Your task to perform on an android device: toggle notifications settings in the gmail app Image 0: 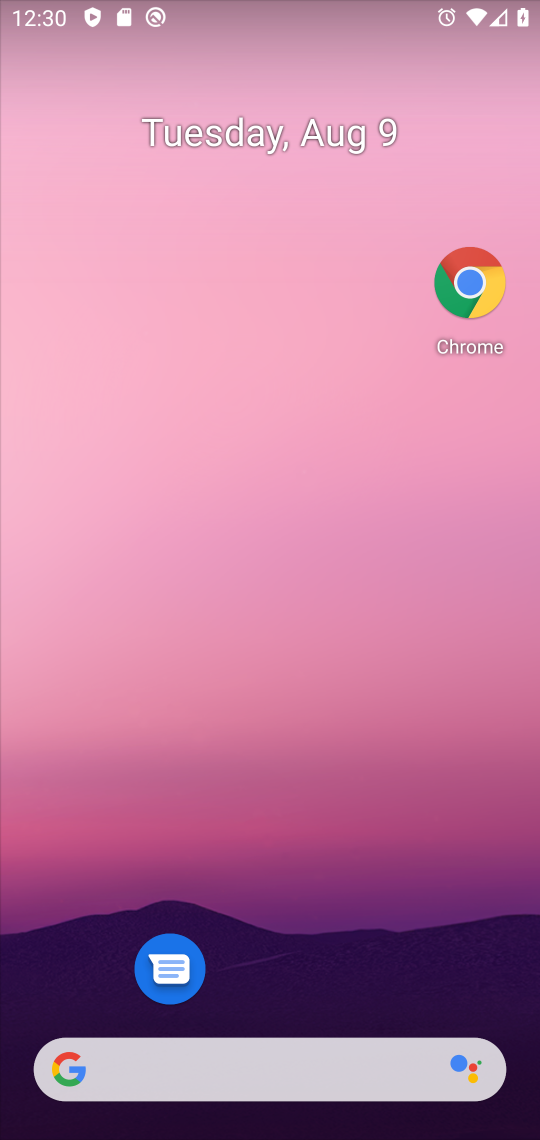
Step 0: drag from (280, 816) to (292, 384)
Your task to perform on an android device: toggle notifications settings in the gmail app Image 1: 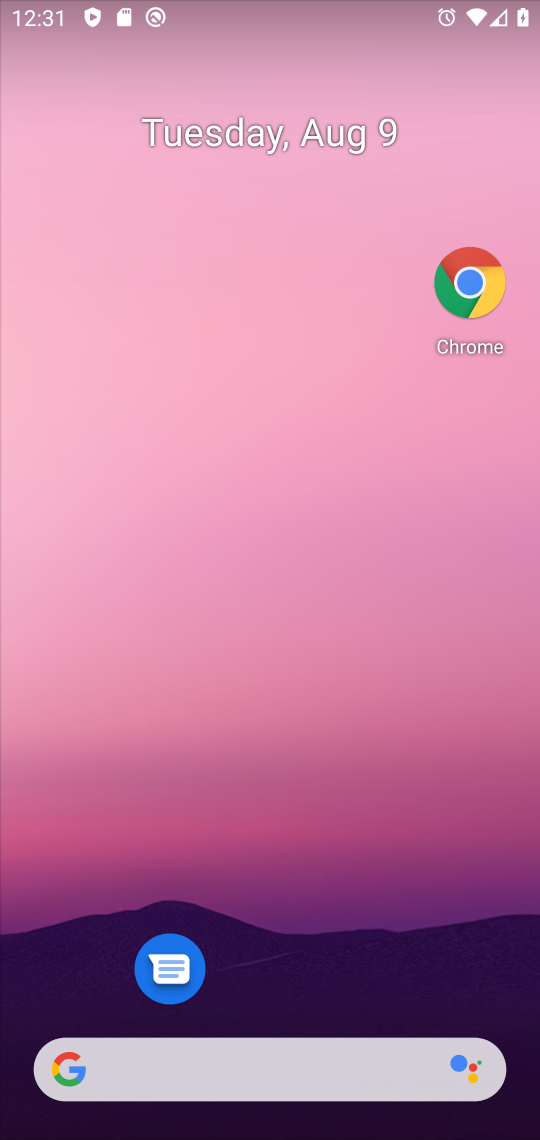
Step 1: drag from (229, 983) to (384, 255)
Your task to perform on an android device: toggle notifications settings in the gmail app Image 2: 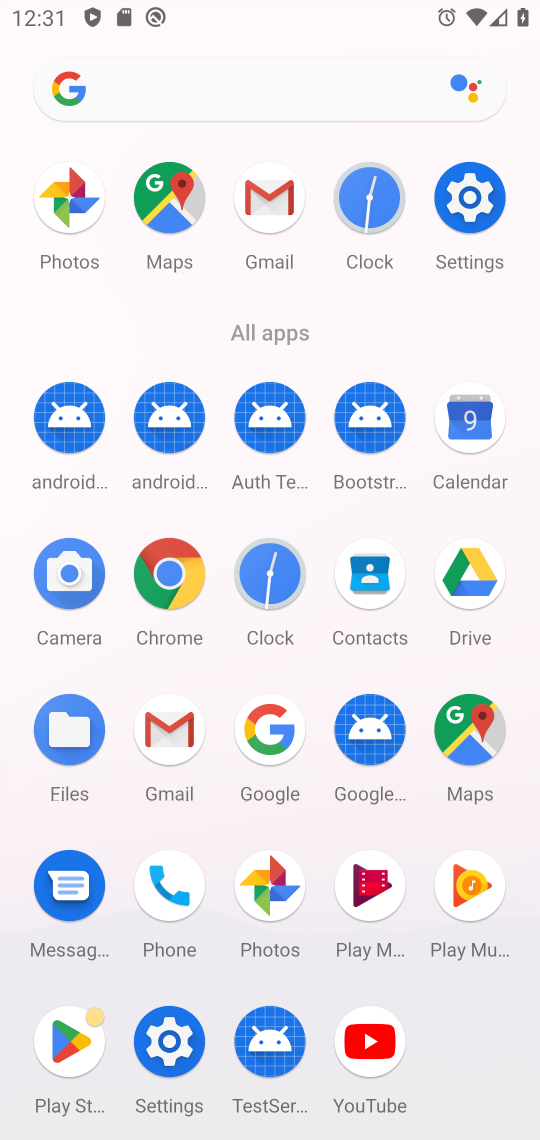
Step 2: click (179, 718)
Your task to perform on an android device: toggle notifications settings in the gmail app Image 3: 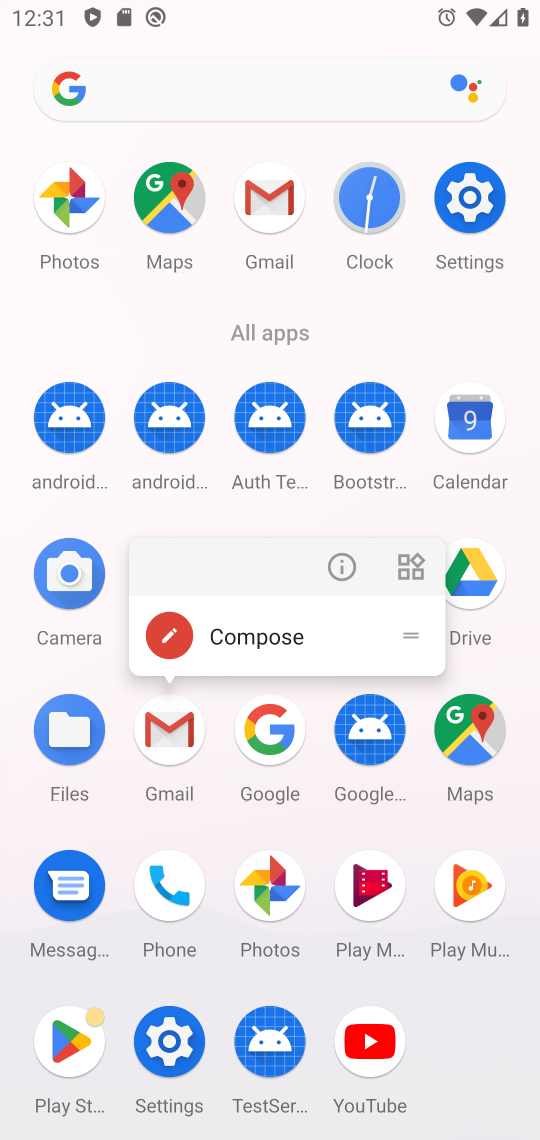
Step 3: click (343, 563)
Your task to perform on an android device: toggle notifications settings in the gmail app Image 4: 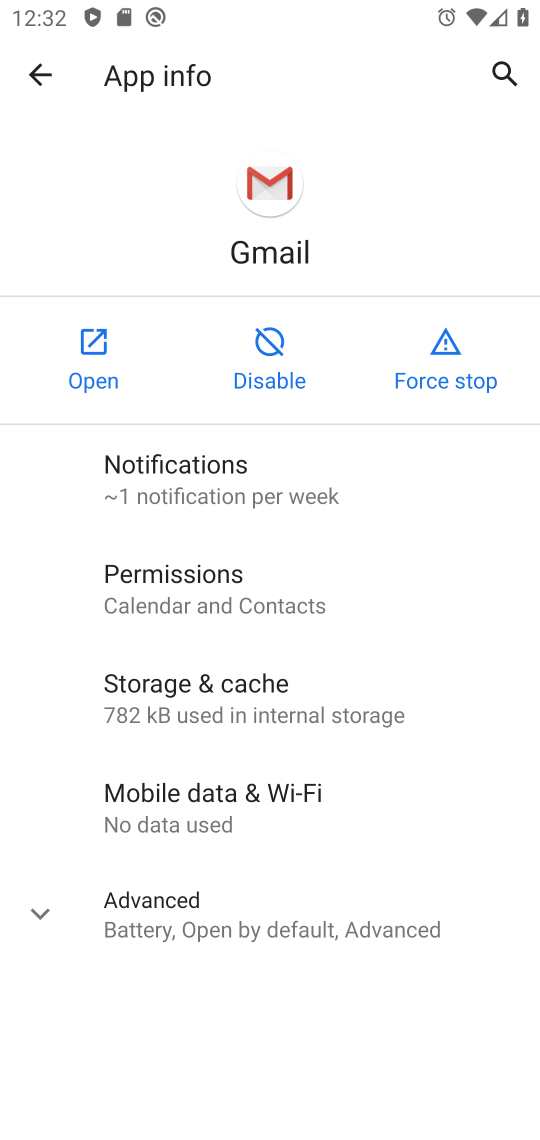
Step 4: click (95, 380)
Your task to perform on an android device: toggle notifications settings in the gmail app Image 5: 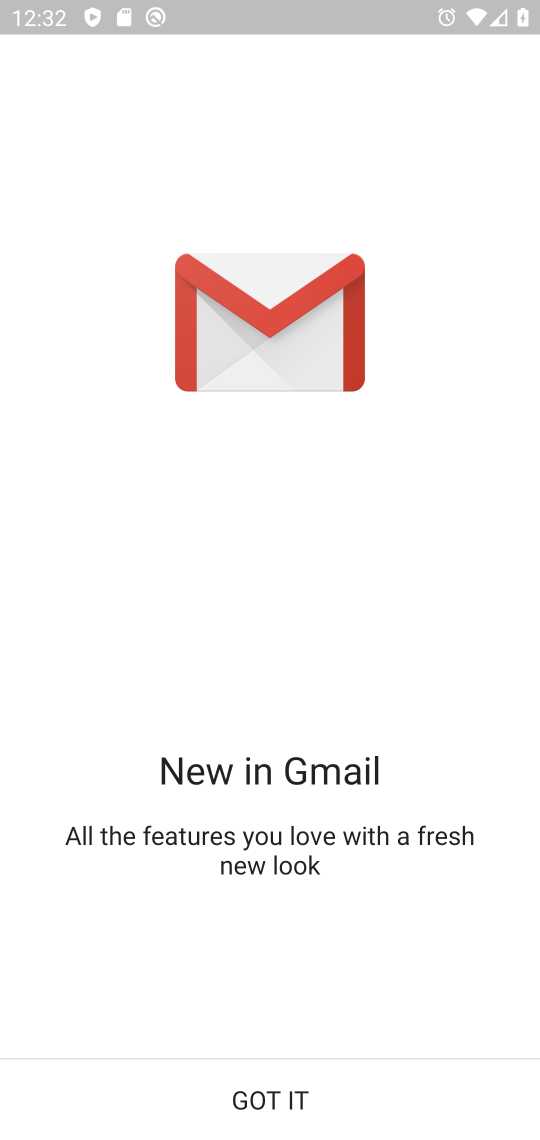
Step 5: click (282, 1077)
Your task to perform on an android device: toggle notifications settings in the gmail app Image 6: 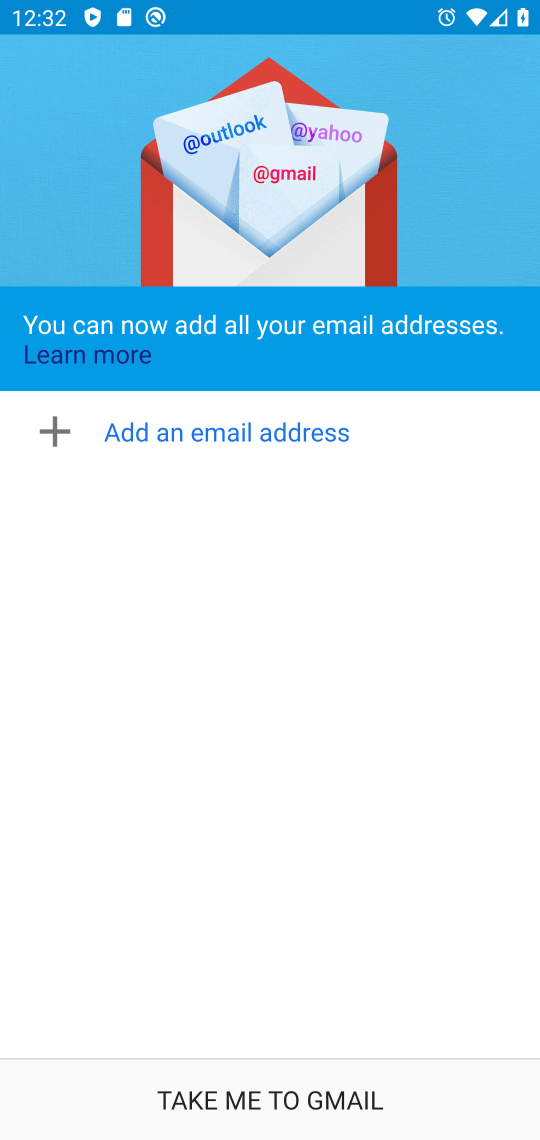
Step 6: click (217, 1101)
Your task to perform on an android device: toggle notifications settings in the gmail app Image 7: 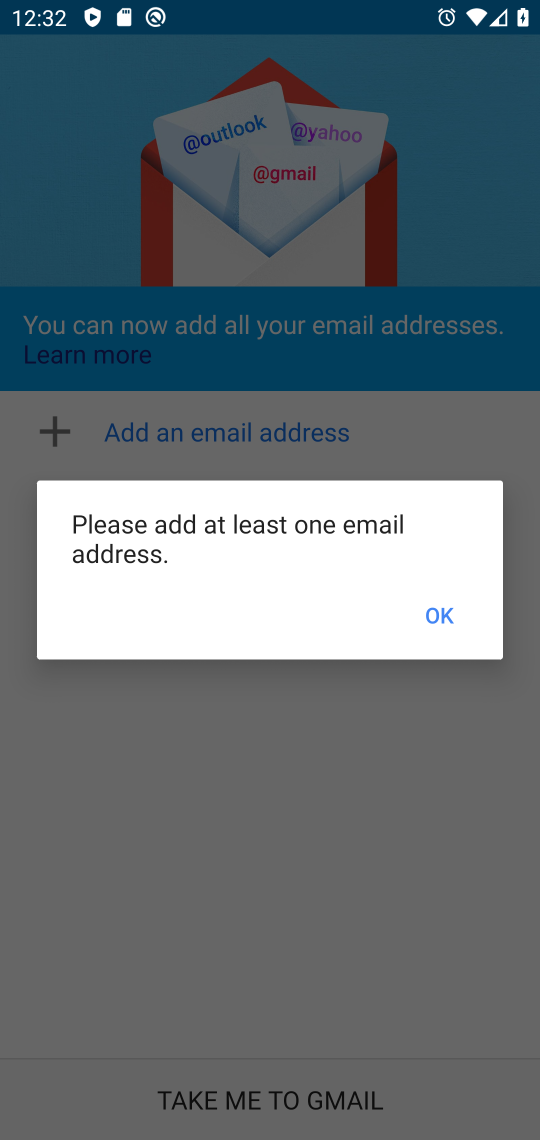
Step 7: click (423, 580)
Your task to perform on an android device: toggle notifications settings in the gmail app Image 8: 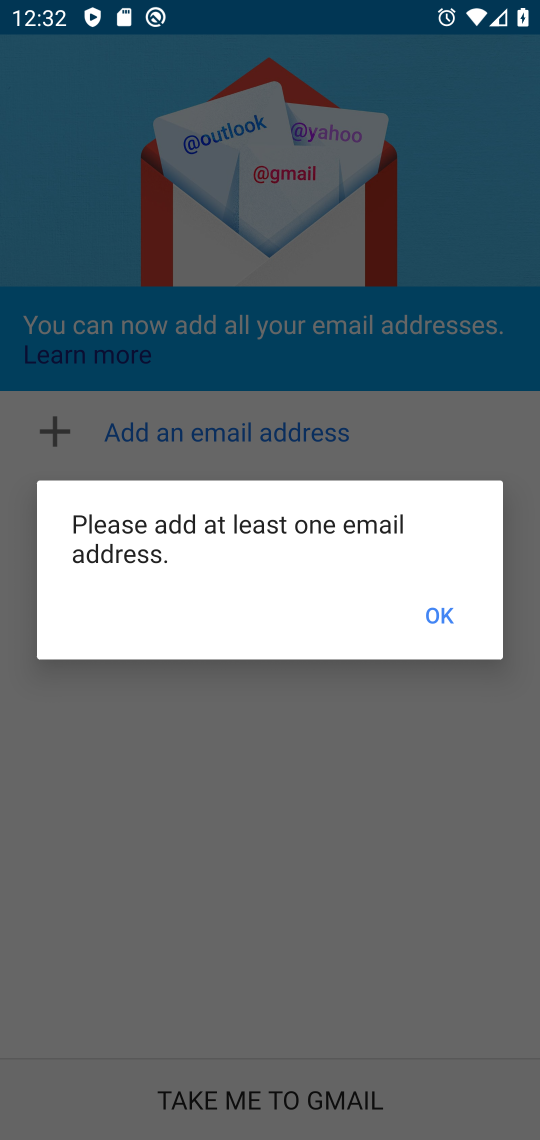
Step 8: click (423, 580)
Your task to perform on an android device: toggle notifications settings in the gmail app Image 9: 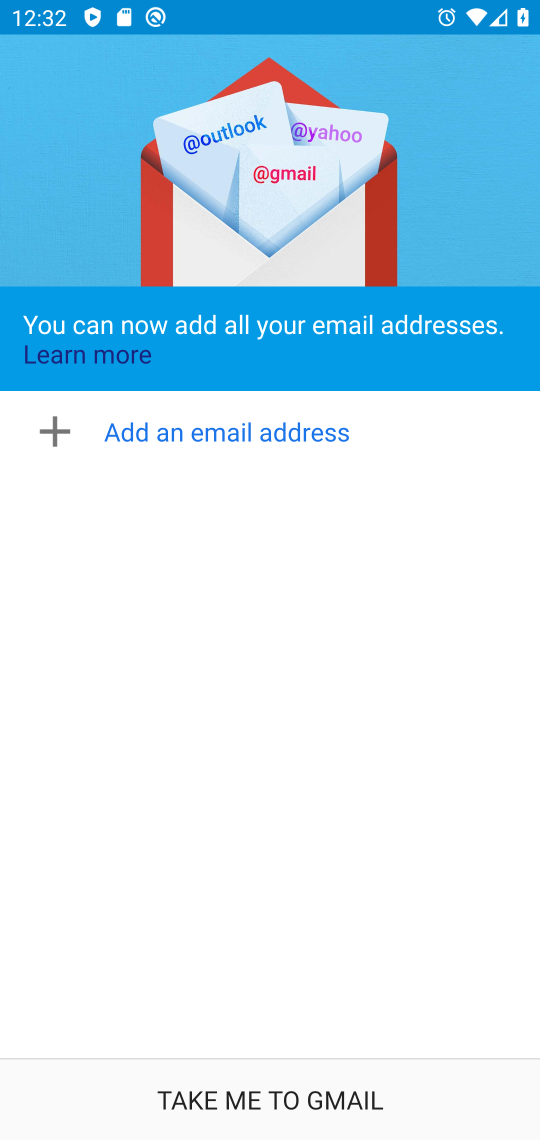
Step 9: click (423, 581)
Your task to perform on an android device: toggle notifications settings in the gmail app Image 10: 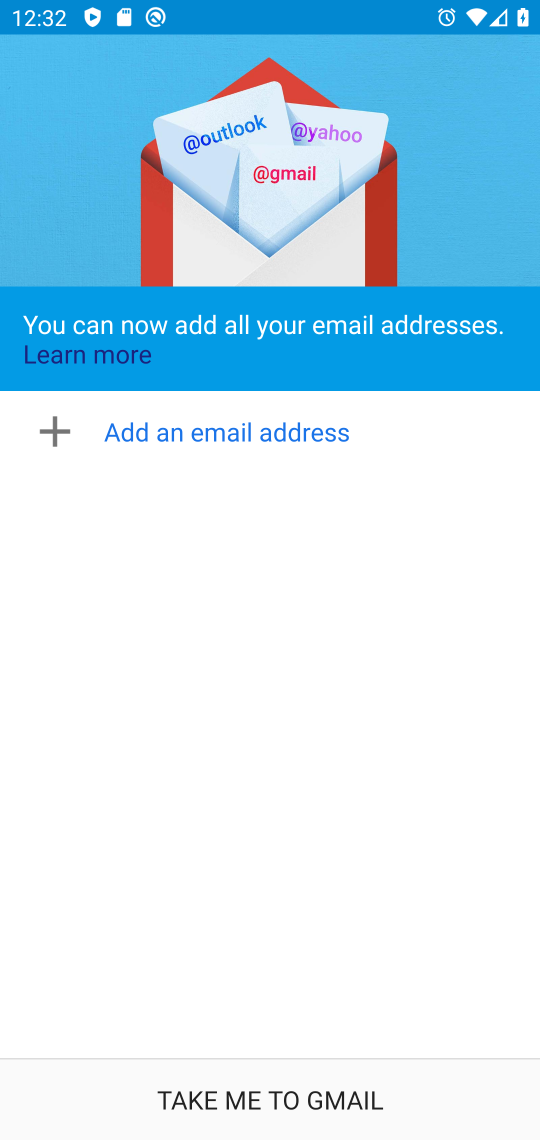
Step 10: click (448, 631)
Your task to perform on an android device: toggle notifications settings in the gmail app Image 11: 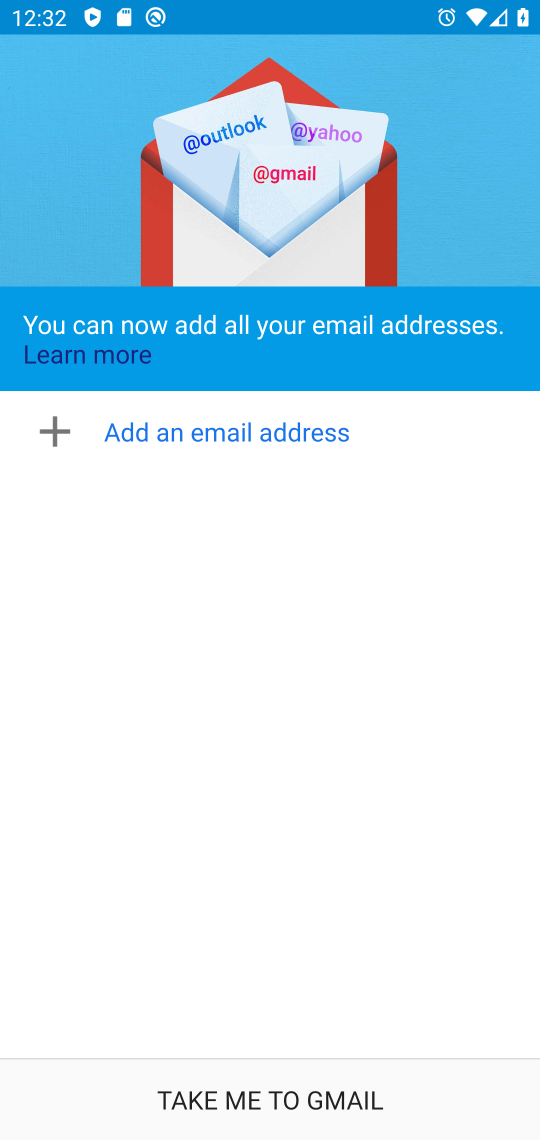
Step 11: task complete